Your task to perform on an android device: Open settings Image 0: 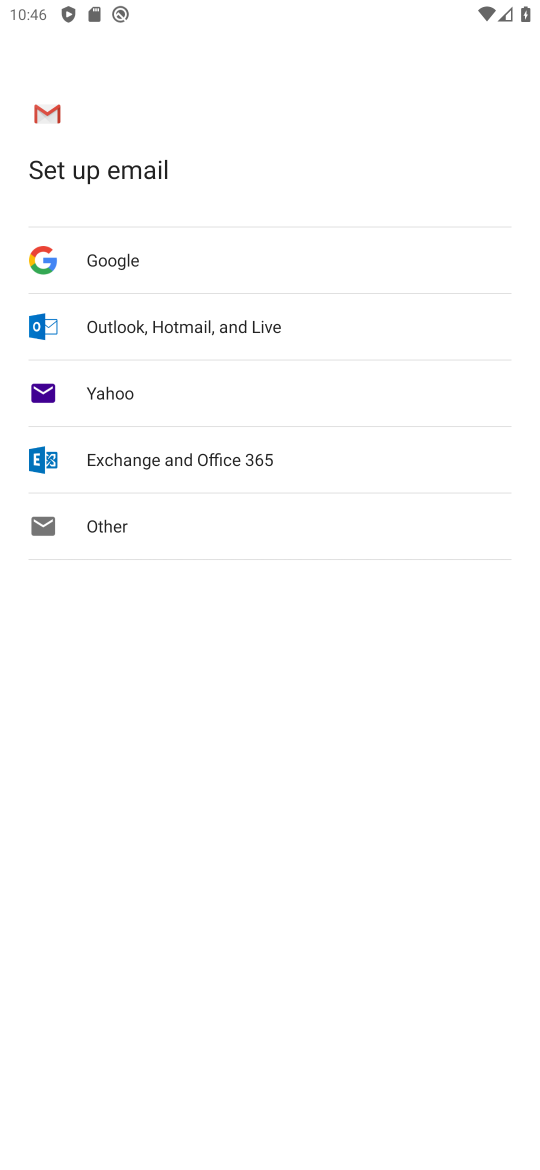
Step 0: task complete